Your task to perform on an android device: stop showing notifications on the lock screen Image 0: 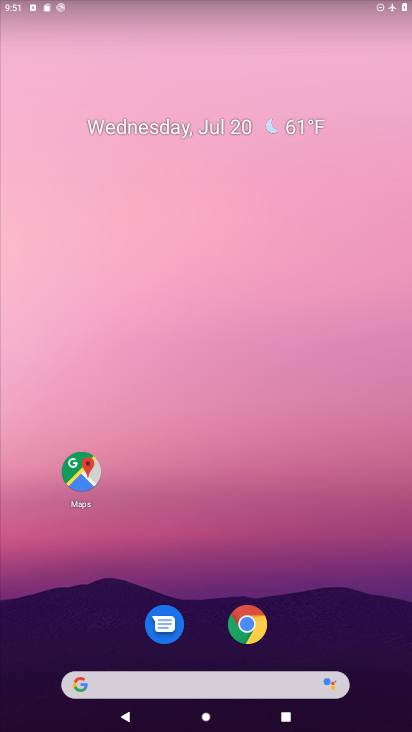
Step 0: drag from (208, 583) to (213, 101)
Your task to perform on an android device: stop showing notifications on the lock screen Image 1: 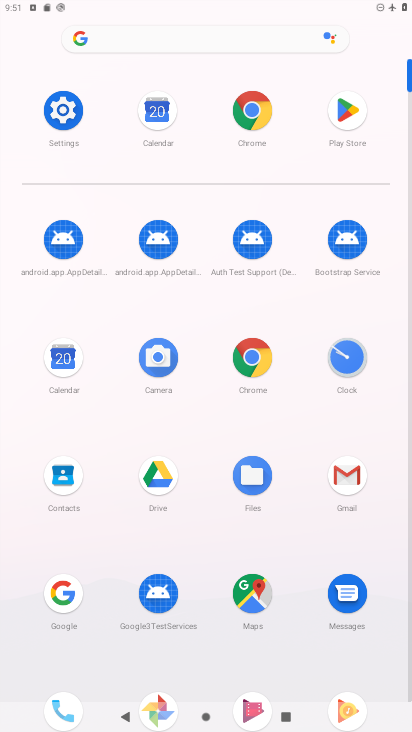
Step 1: click (49, 101)
Your task to perform on an android device: stop showing notifications on the lock screen Image 2: 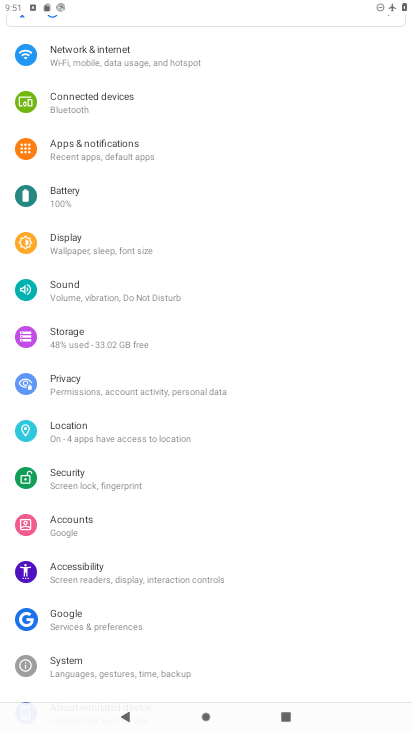
Step 2: click (195, 146)
Your task to perform on an android device: stop showing notifications on the lock screen Image 3: 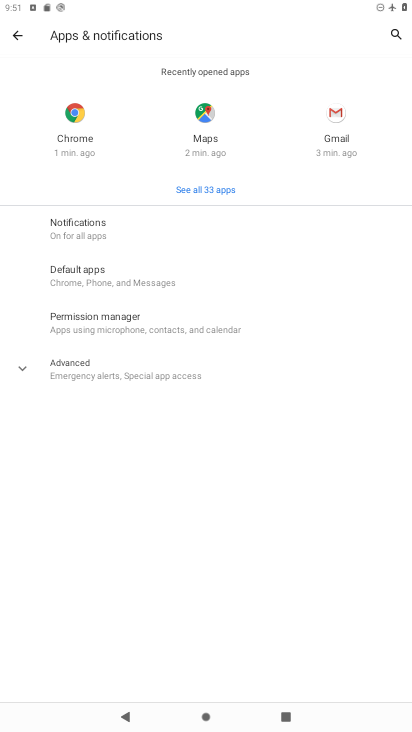
Step 3: click (118, 221)
Your task to perform on an android device: stop showing notifications on the lock screen Image 4: 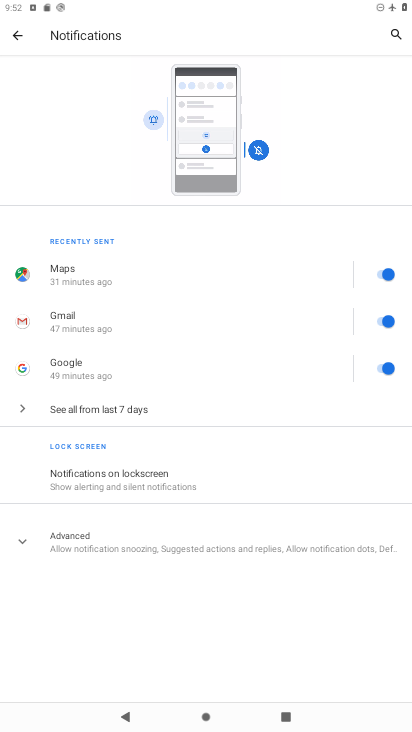
Step 4: click (144, 490)
Your task to perform on an android device: stop showing notifications on the lock screen Image 5: 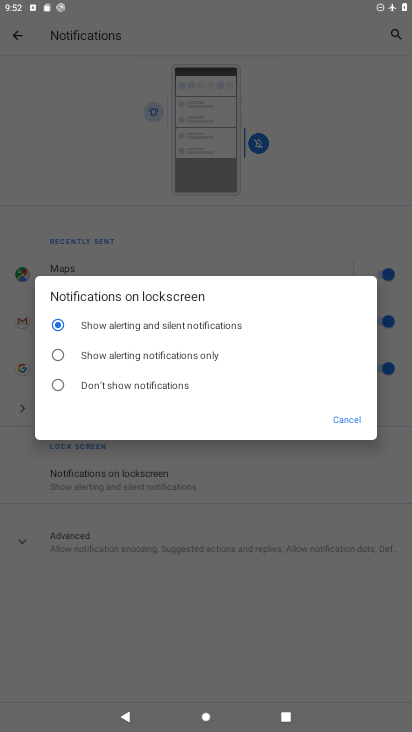
Step 5: click (147, 383)
Your task to perform on an android device: stop showing notifications on the lock screen Image 6: 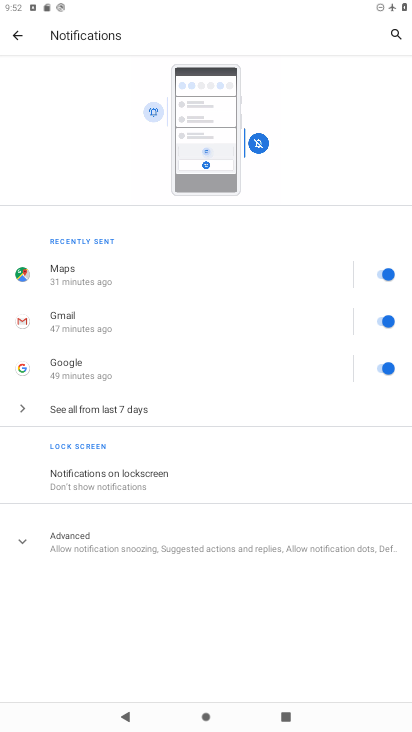
Step 6: task complete